Your task to perform on an android device: Open my contact list Image 0: 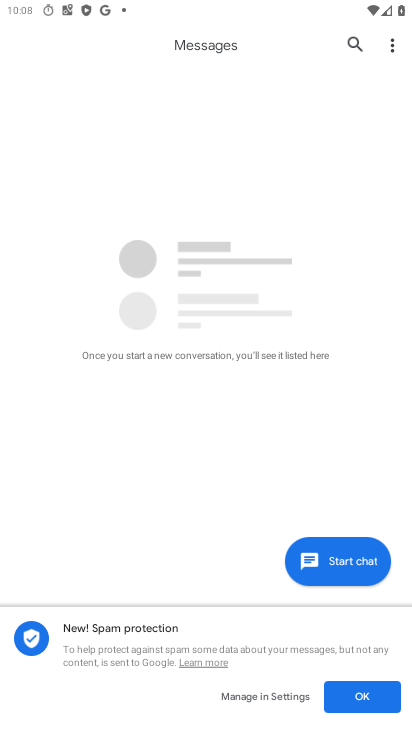
Step 0: press home button
Your task to perform on an android device: Open my contact list Image 1: 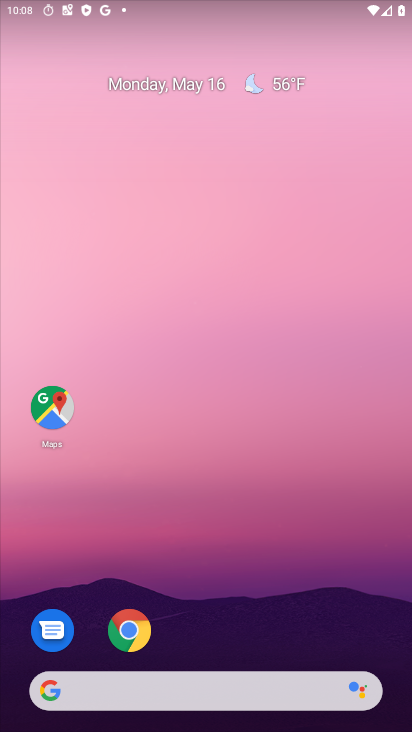
Step 1: drag from (213, 651) to (300, 4)
Your task to perform on an android device: Open my contact list Image 2: 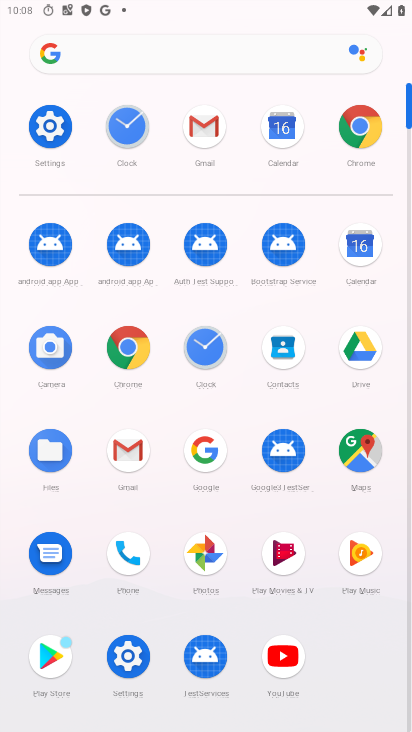
Step 2: click (281, 360)
Your task to perform on an android device: Open my contact list Image 3: 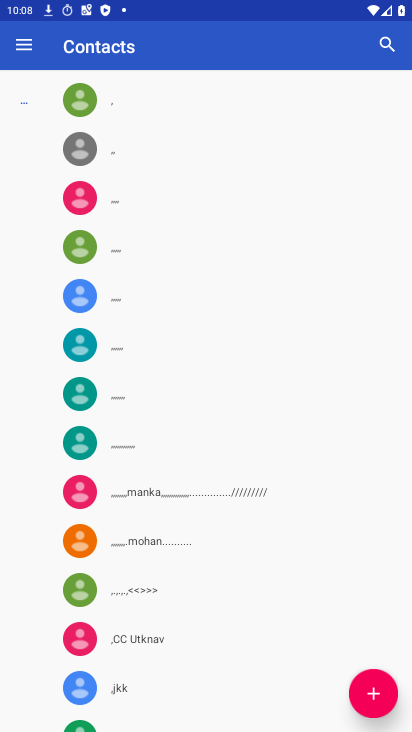
Step 3: task complete